Your task to perform on an android device: change timer sound Image 0: 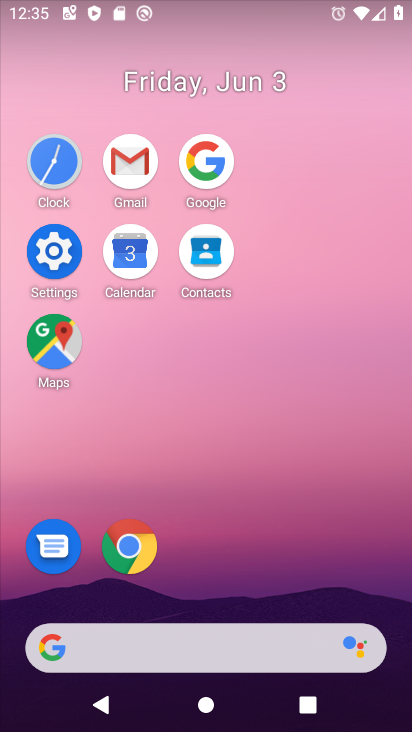
Step 0: click (59, 153)
Your task to perform on an android device: change timer sound Image 1: 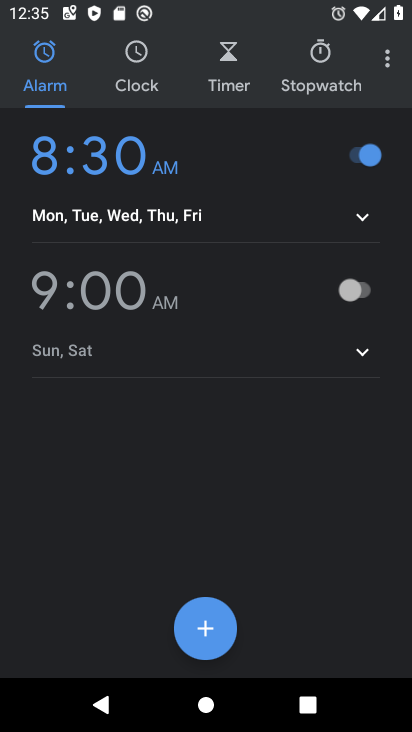
Step 1: click (402, 69)
Your task to perform on an android device: change timer sound Image 2: 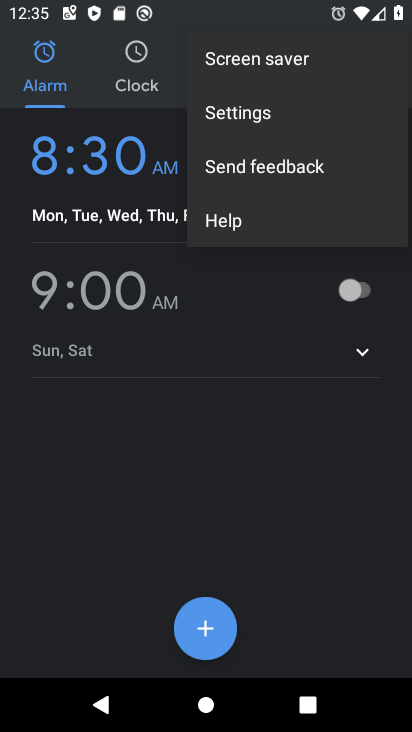
Step 2: click (332, 115)
Your task to perform on an android device: change timer sound Image 3: 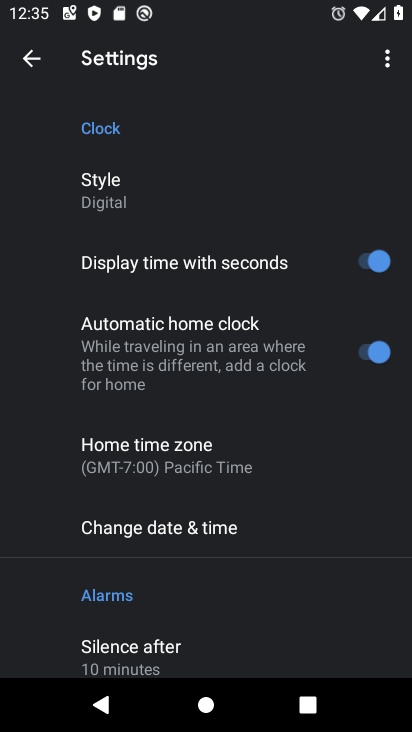
Step 3: drag from (224, 619) to (258, 251)
Your task to perform on an android device: change timer sound Image 4: 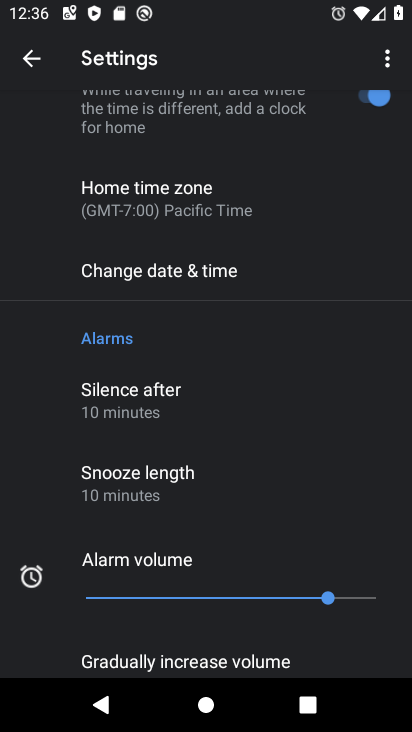
Step 4: drag from (288, 483) to (265, 187)
Your task to perform on an android device: change timer sound Image 5: 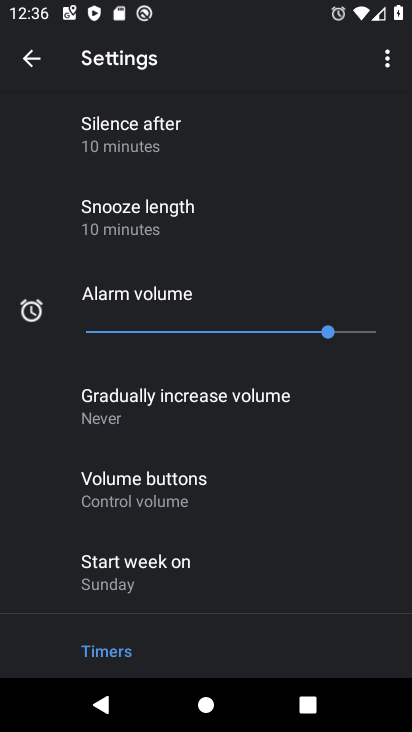
Step 5: drag from (247, 530) to (239, 189)
Your task to perform on an android device: change timer sound Image 6: 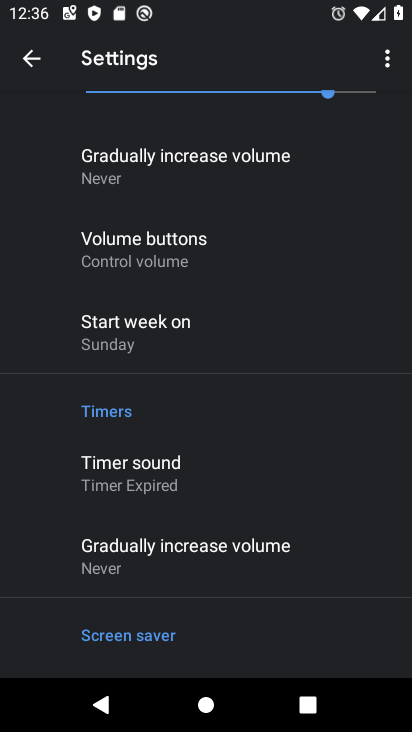
Step 6: drag from (303, 504) to (328, 175)
Your task to perform on an android device: change timer sound Image 7: 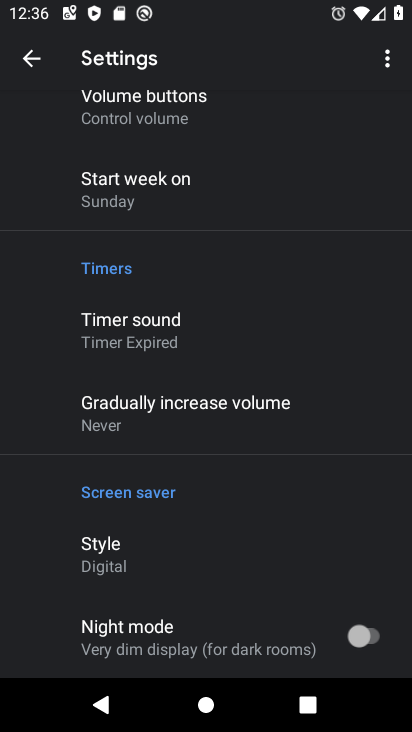
Step 7: click (236, 335)
Your task to perform on an android device: change timer sound Image 8: 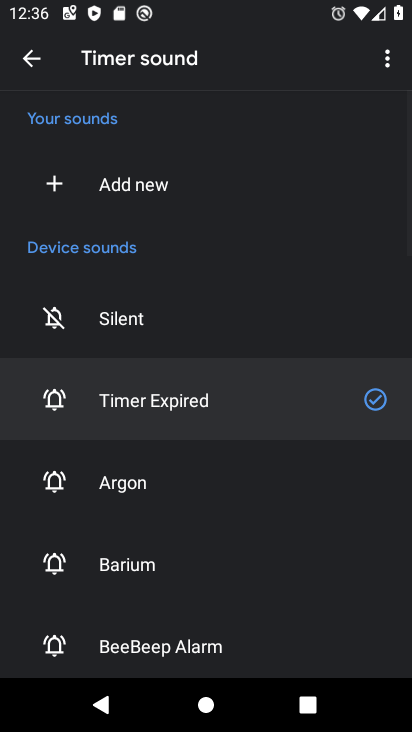
Step 8: click (207, 488)
Your task to perform on an android device: change timer sound Image 9: 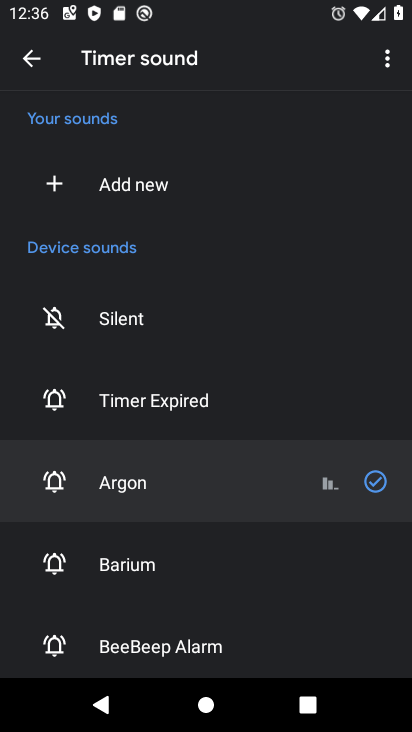
Step 9: task complete